Your task to perform on an android device: uninstall "Facebook" Image 0: 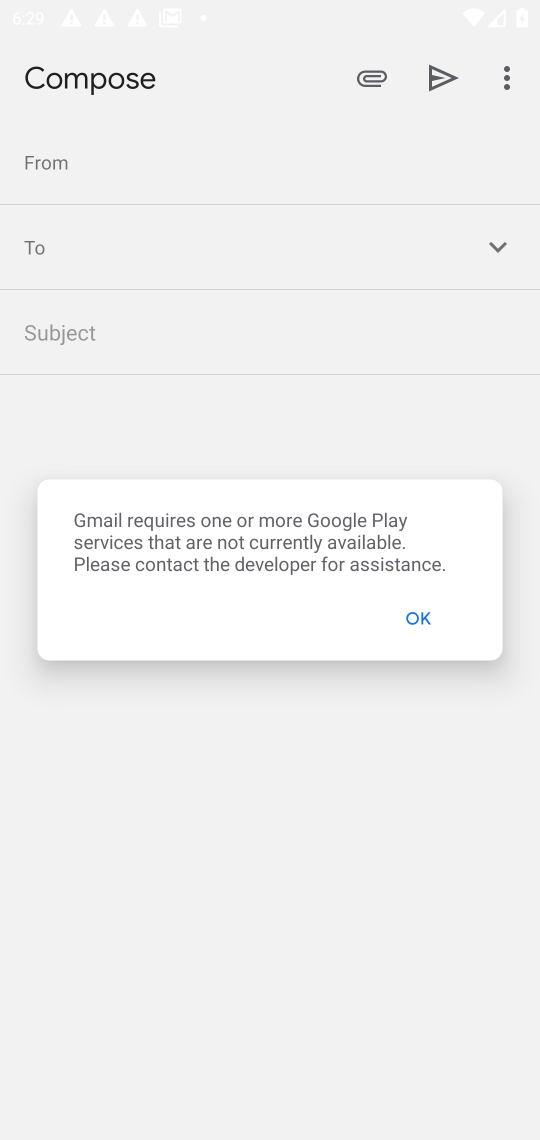
Step 0: press home button
Your task to perform on an android device: uninstall "Facebook" Image 1: 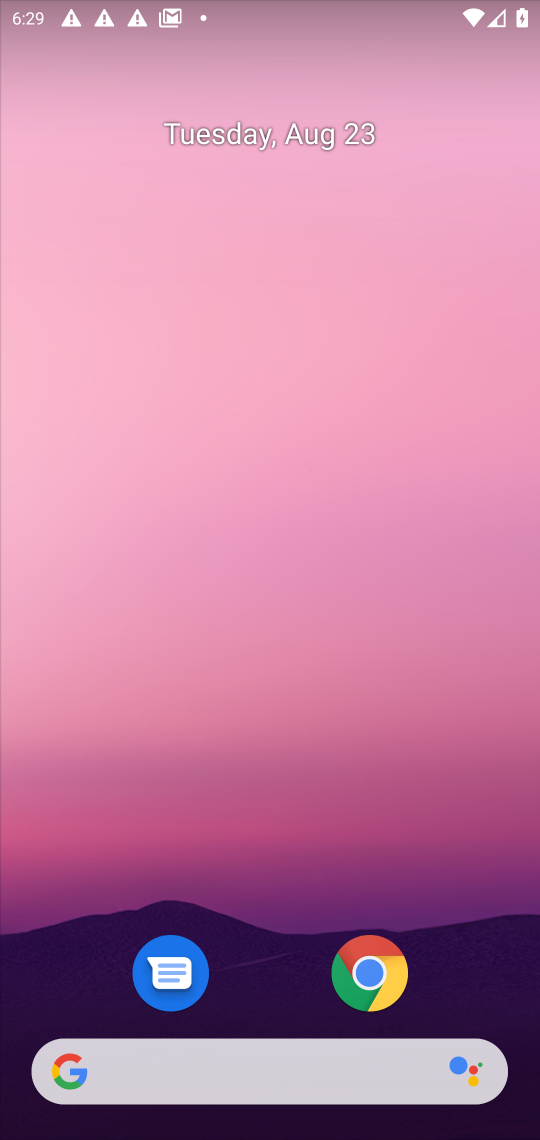
Step 1: drag from (313, 485) to (337, 281)
Your task to perform on an android device: uninstall "Facebook" Image 2: 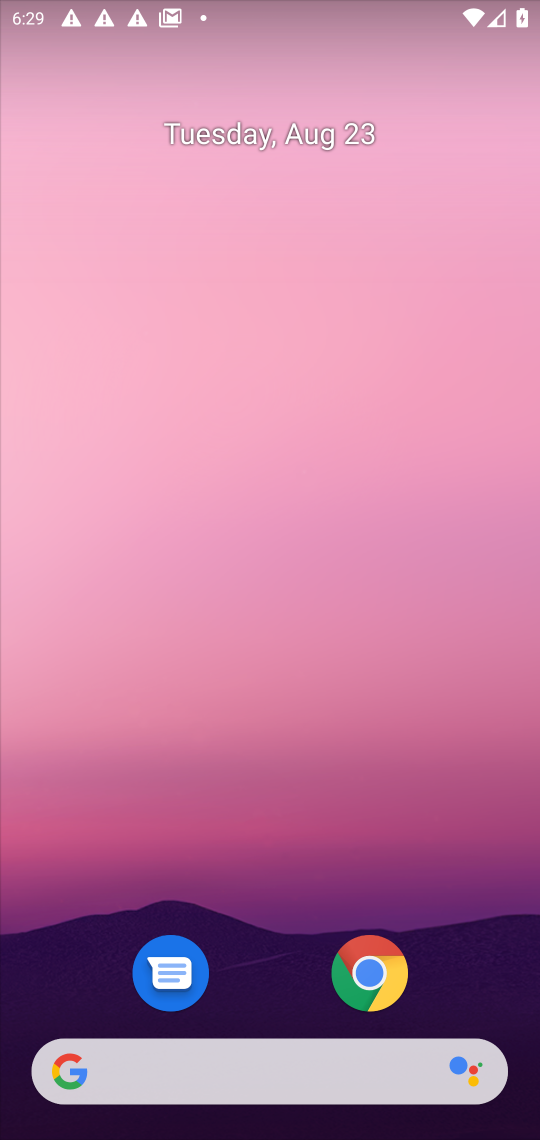
Step 2: drag from (260, 784) to (280, 146)
Your task to perform on an android device: uninstall "Facebook" Image 3: 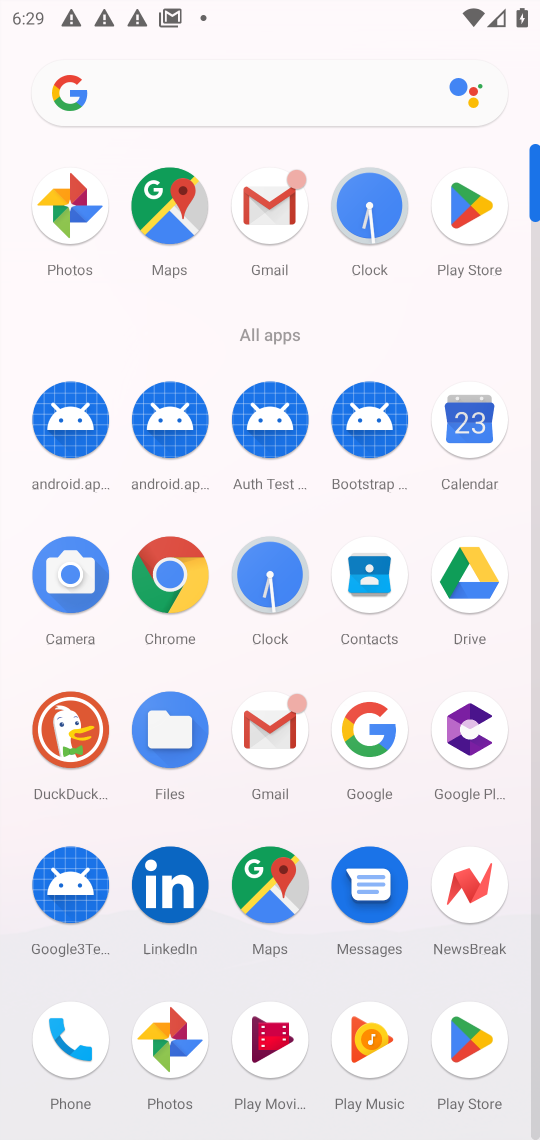
Step 3: click (478, 216)
Your task to perform on an android device: uninstall "Facebook" Image 4: 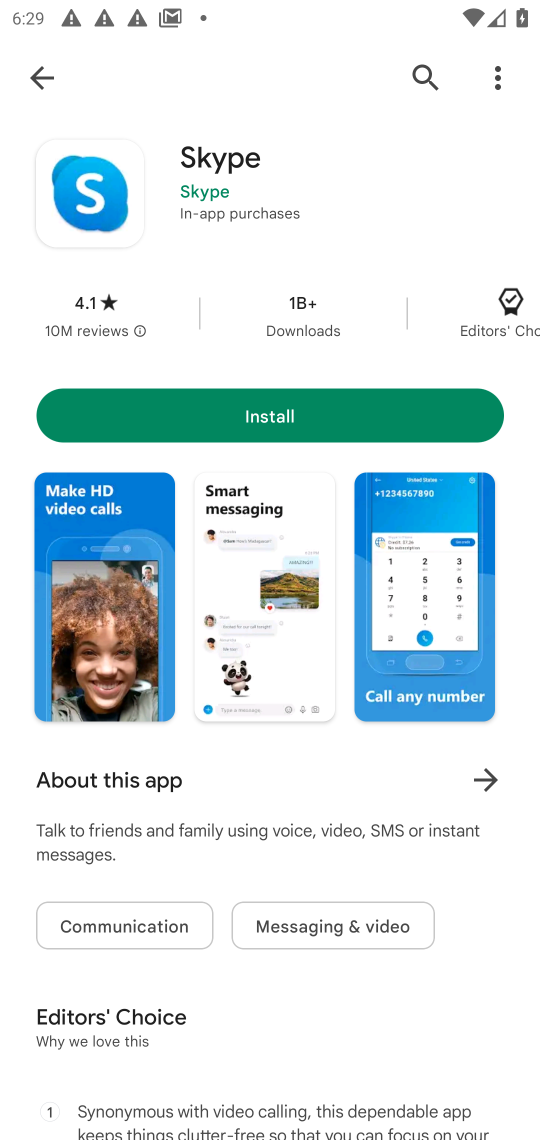
Step 4: click (409, 73)
Your task to perform on an android device: uninstall "Facebook" Image 5: 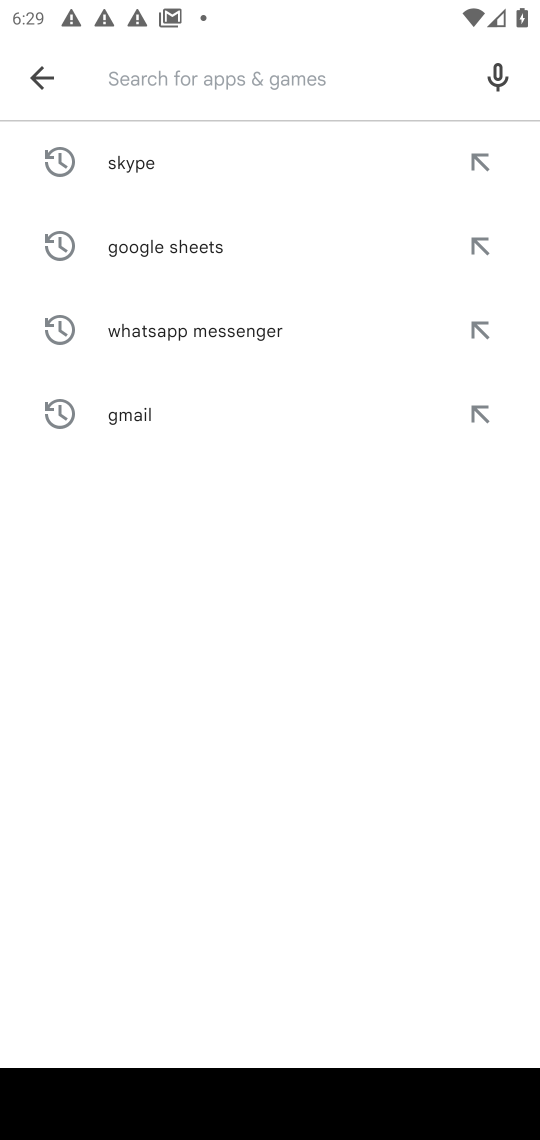
Step 5: click (232, 85)
Your task to perform on an android device: uninstall "Facebook" Image 6: 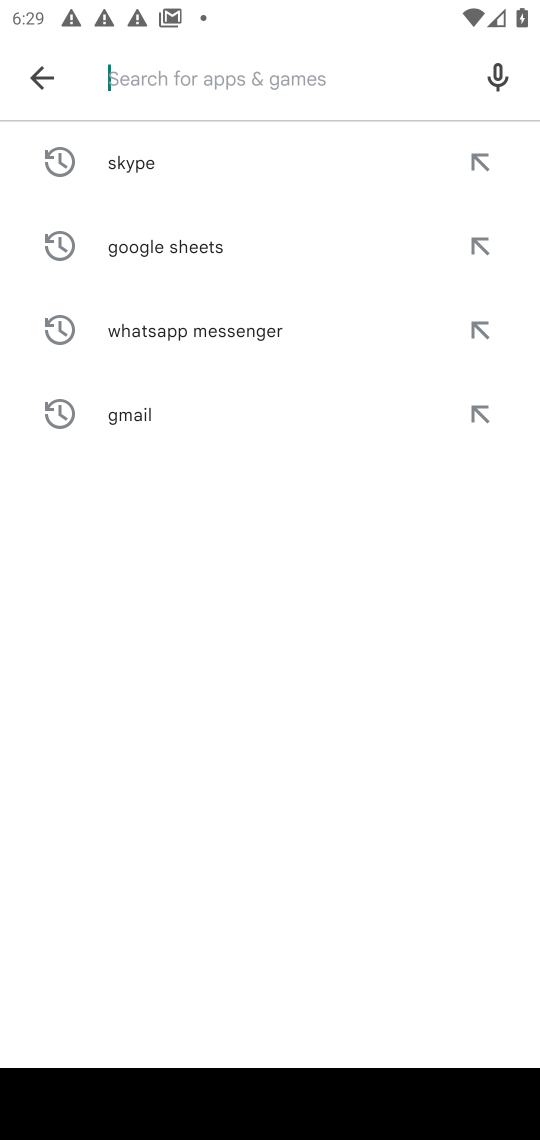
Step 6: type "Facebook"
Your task to perform on an android device: uninstall "Facebook" Image 7: 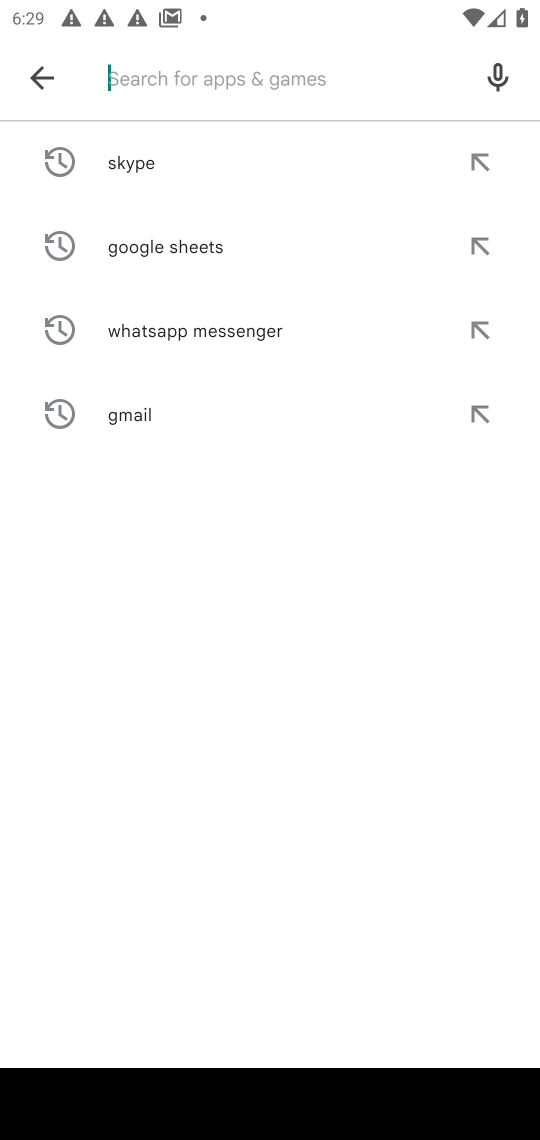
Step 7: click (222, 648)
Your task to perform on an android device: uninstall "Facebook" Image 8: 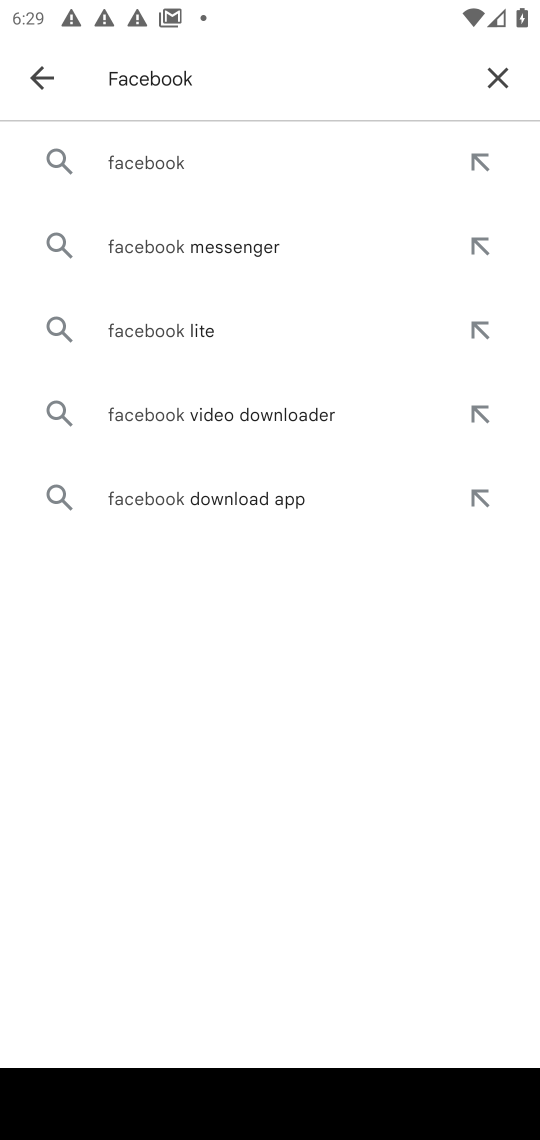
Step 8: click (175, 139)
Your task to perform on an android device: uninstall "Facebook" Image 9: 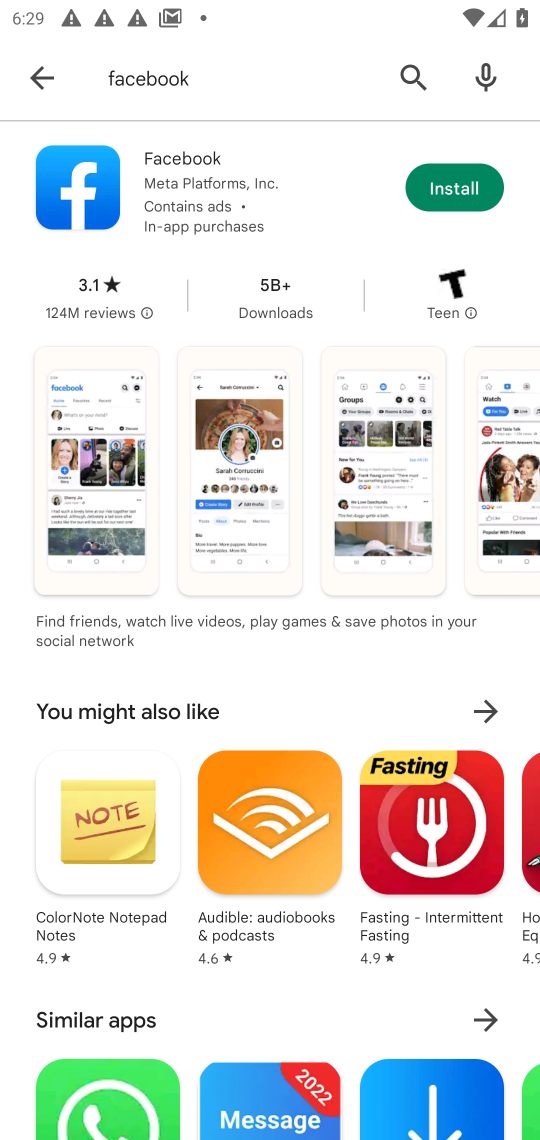
Step 9: click (189, 182)
Your task to perform on an android device: uninstall "Facebook" Image 10: 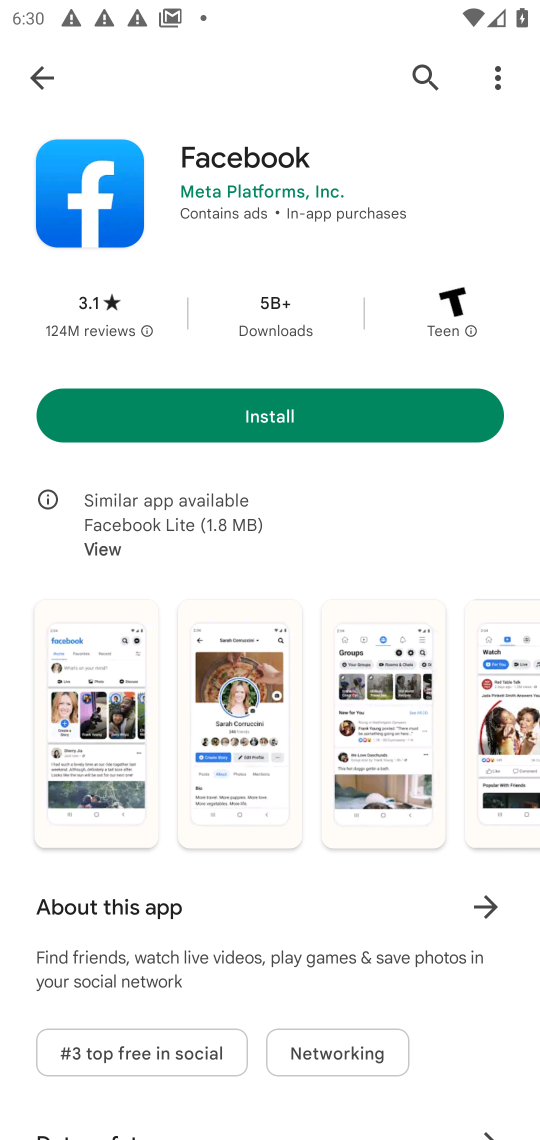
Step 10: task complete